Your task to perform on an android device: Go to Google maps Image 0: 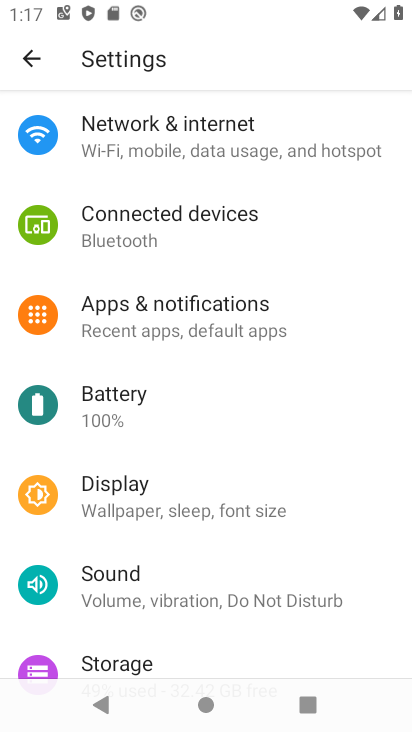
Step 0: press home button
Your task to perform on an android device: Go to Google maps Image 1: 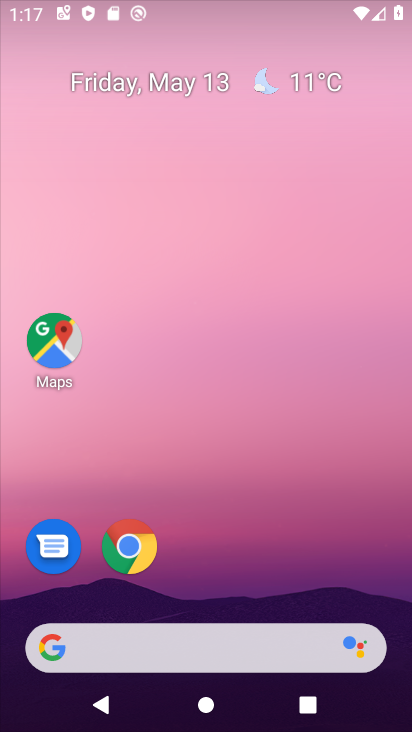
Step 1: drag from (206, 542) to (272, 81)
Your task to perform on an android device: Go to Google maps Image 2: 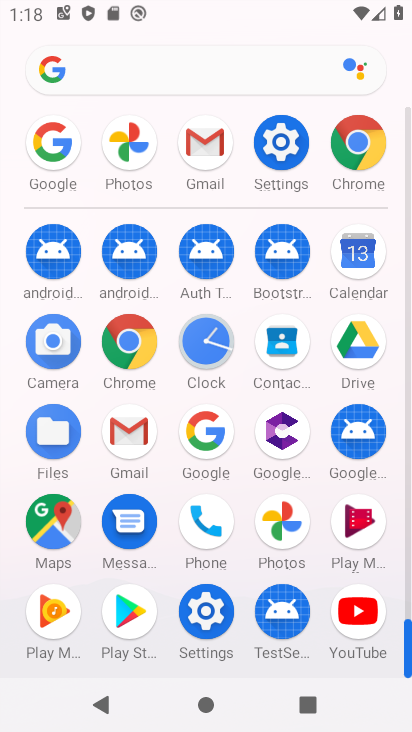
Step 2: click (67, 525)
Your task to perform on an android device: Go to Google maps Image 3: 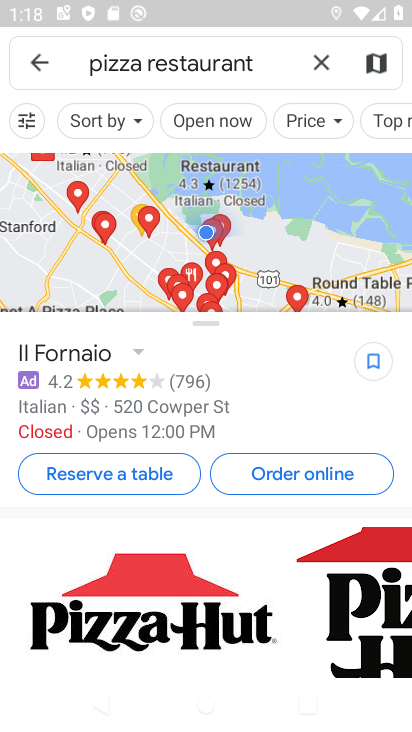
Step 3: task complete